Your task to perform on an android device: see tabs open on other devices in the chrome app Image 0: 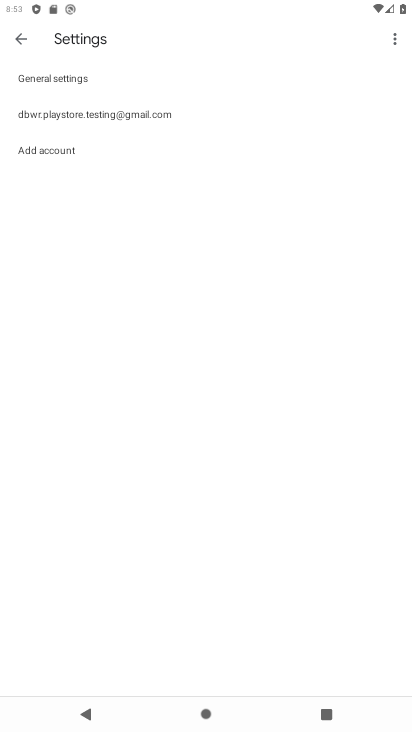
Step 0: press home button
Your task to perform on an android device: see tabs open on other devices in the chrome app Image 1: 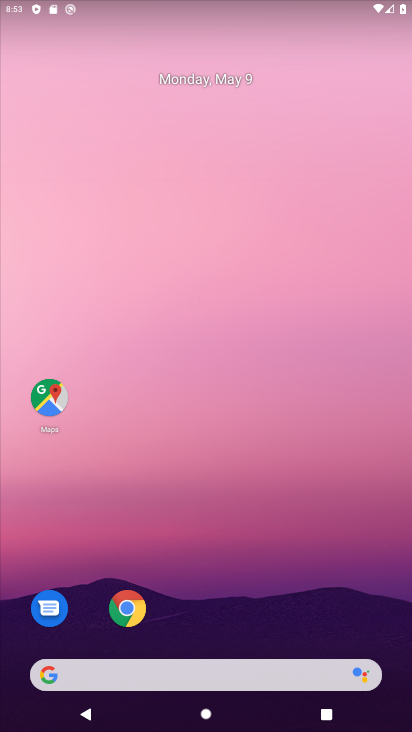
Step 1: click (111, 621)
Your task to perform on an android device: see tabs open on other devices in the chrome app Image 2: 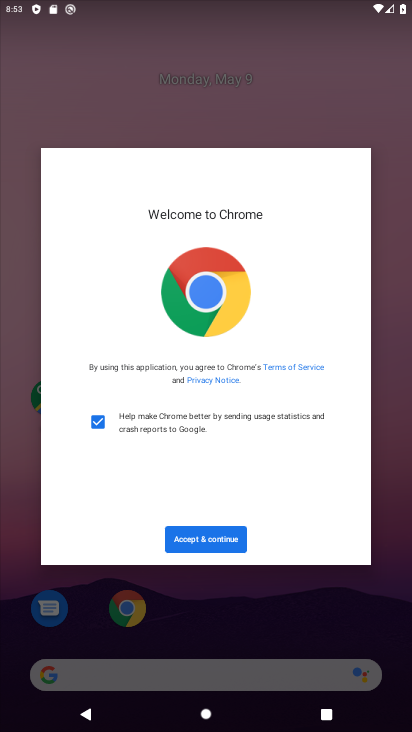
Step 2: click (129, 608)
Your task to perform on an android device: see tabs open on other devices in the chrome app Image 3: 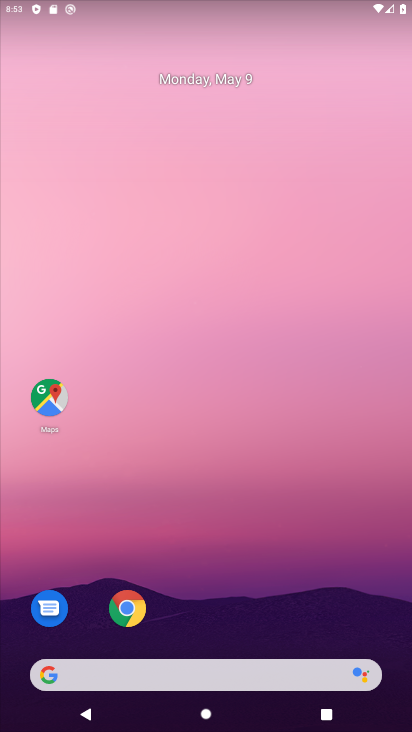
Step 3: click (135, 613)
Your task to perform on an android device: see tabs open on other devices in the chrome app Image 4: 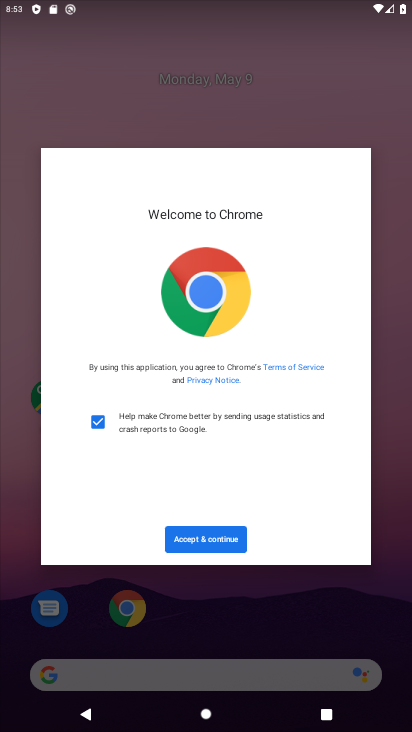
Step 4: click (201, 534)
Your task to perform on an android device: see tabs open on other devices in the chrome app Image 5: 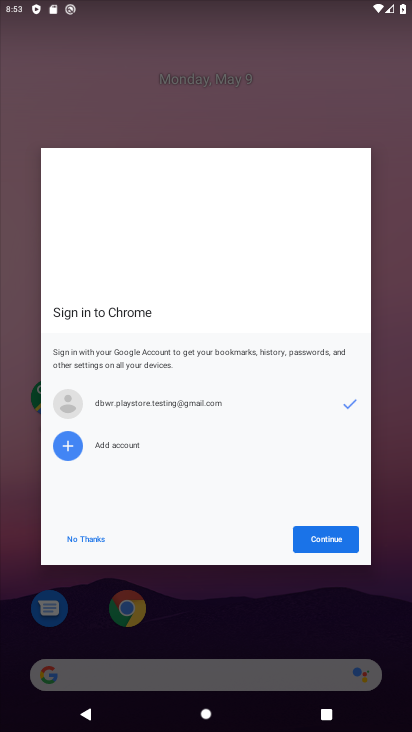
Step 5: click (345, 542)
Your task to perform on an android device: see tabs open on other devices in the chrome app Image 6: 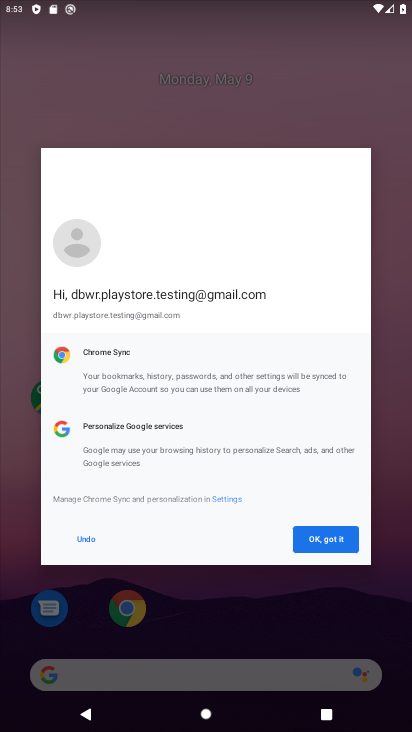
Step 6: click (345, 541)
Your task to perform on an android device: see tabs open on other devices in the chrome app Image 7: 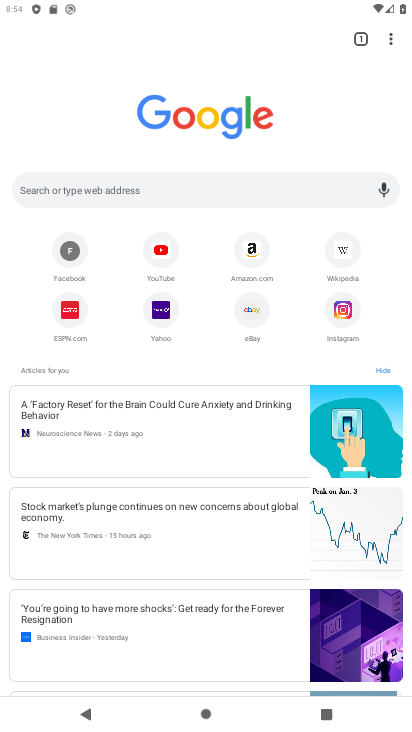
Step 7: task complete